Your task to perform on an android device: turn on showing notifications on the lock screen Image 0: 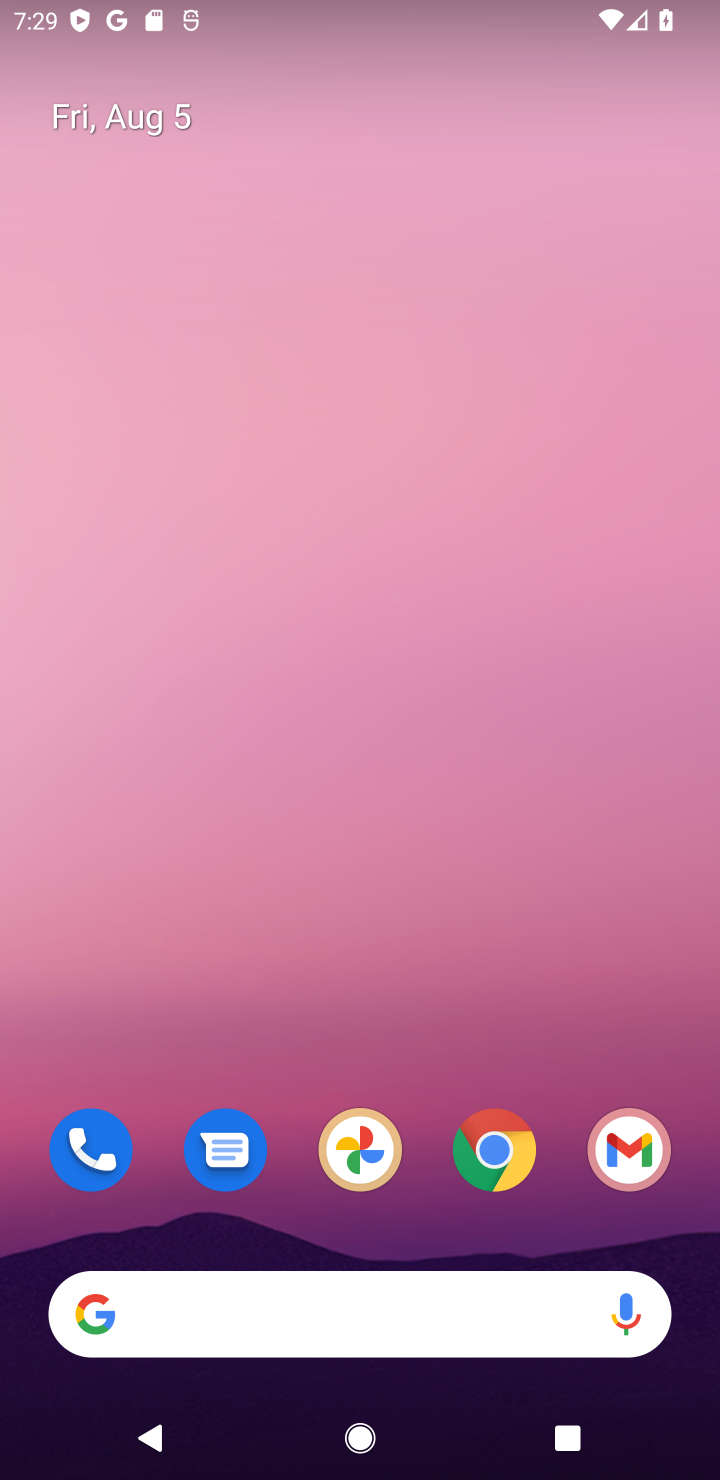
Step 0: press home button
Your task to perform on an android device: turn on showing notifications on the lock screen Image 1: 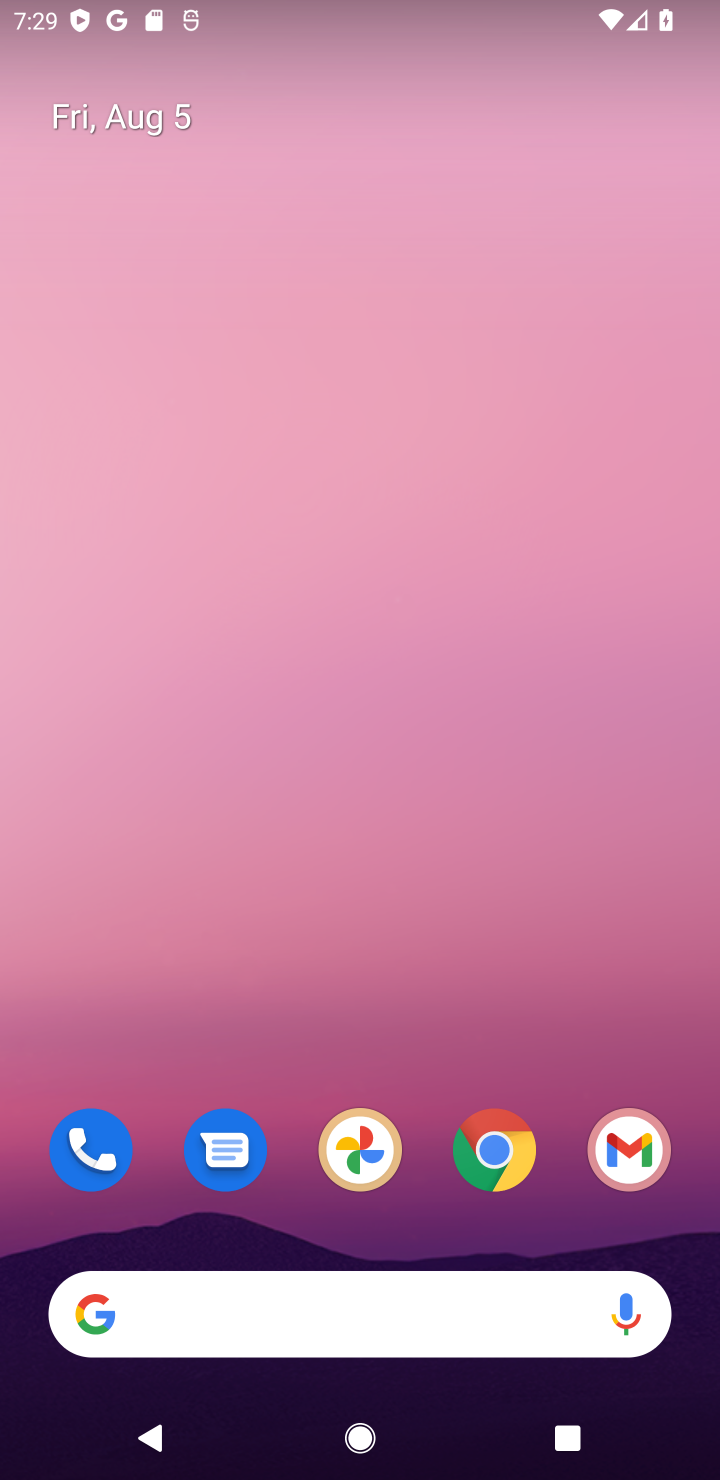
Step 1: drag from (424, 884) to (503, 365)
Your task to perform on an android device: turn on showing notifications on the lock screen Image 2: 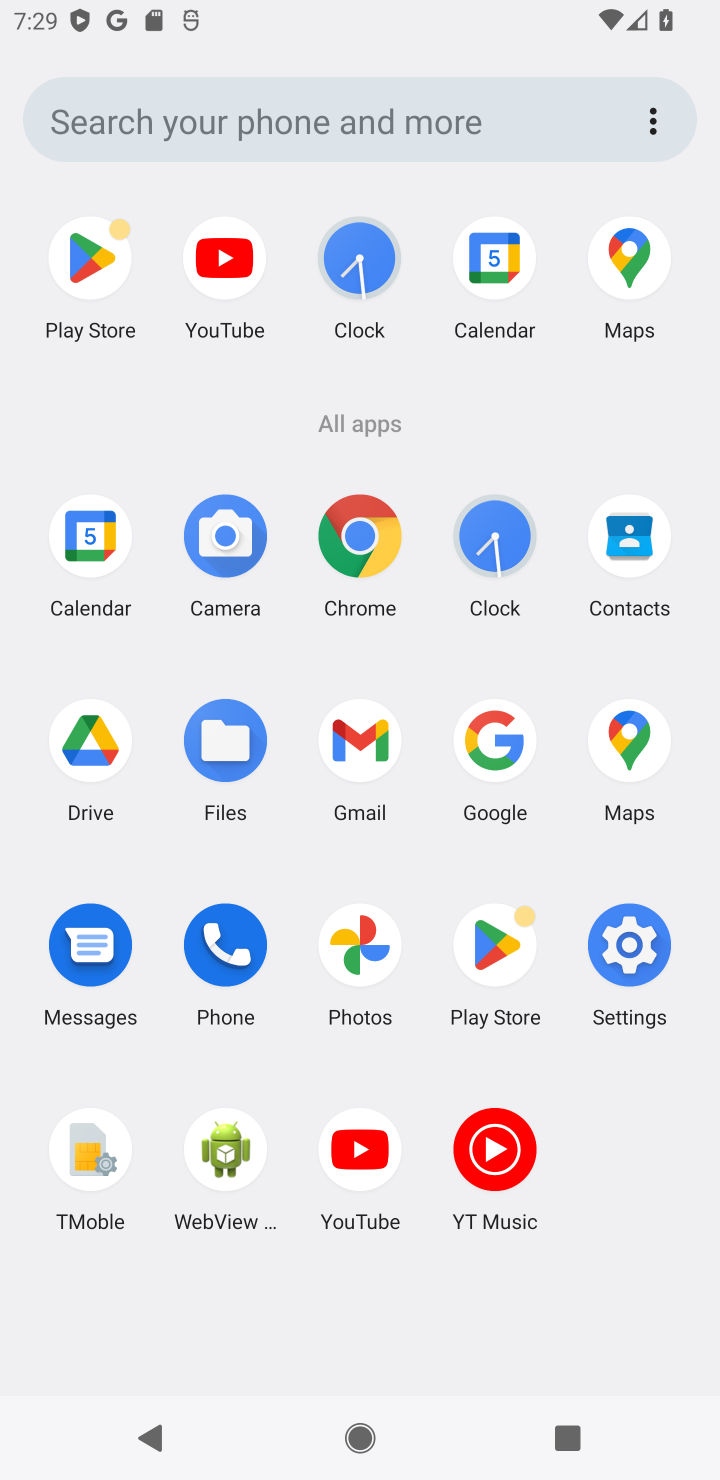
Step 2: click (620, 944)
Your task to perform on an android device: turn on showing notifications on the lock screen Image 3: 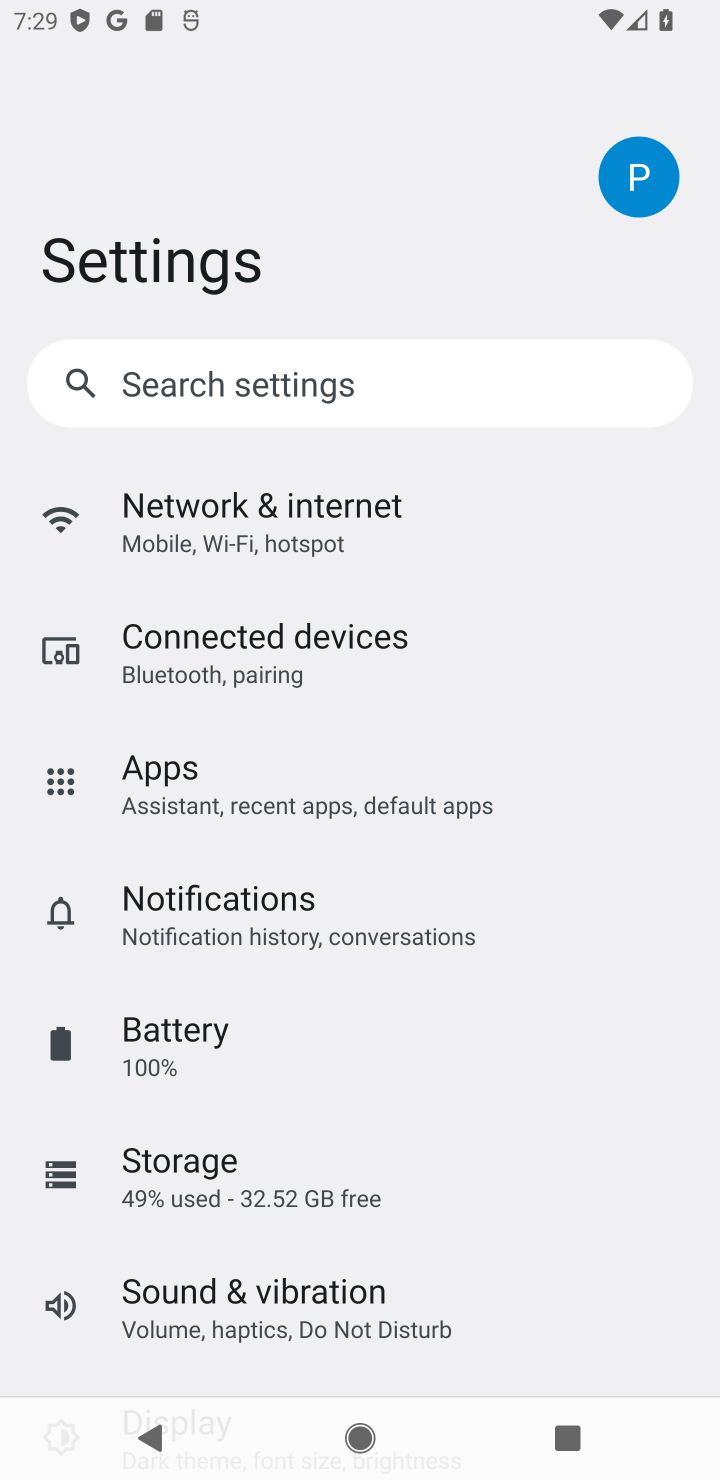
Step 3: drag from (587, 1142) to (630, 794)
Your task to perform on an android device: turn on showing notifications on the lock screen Image 4: 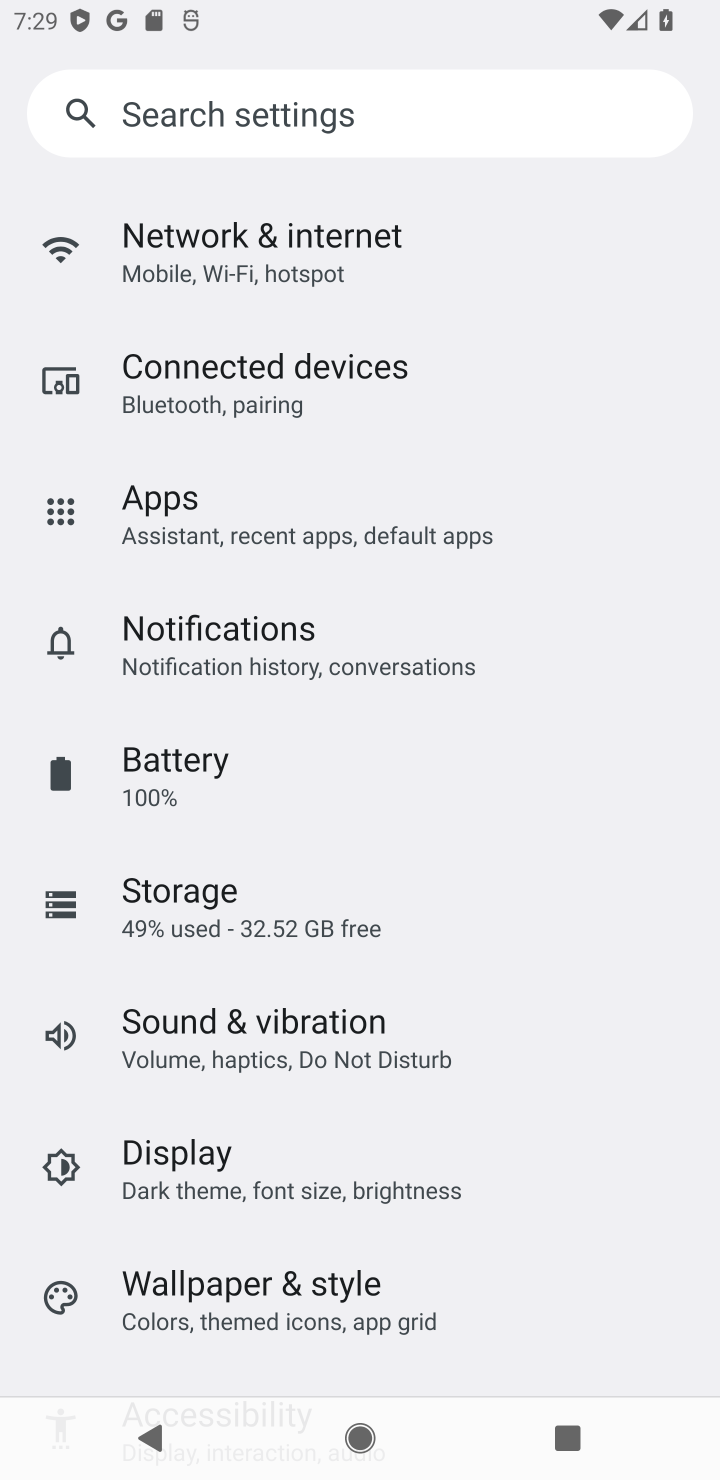
Step 4: drag from (541, 1109) to (581, 829)
Your task to perform on an android device: turn on showing notifications on the lock screen Image 5: 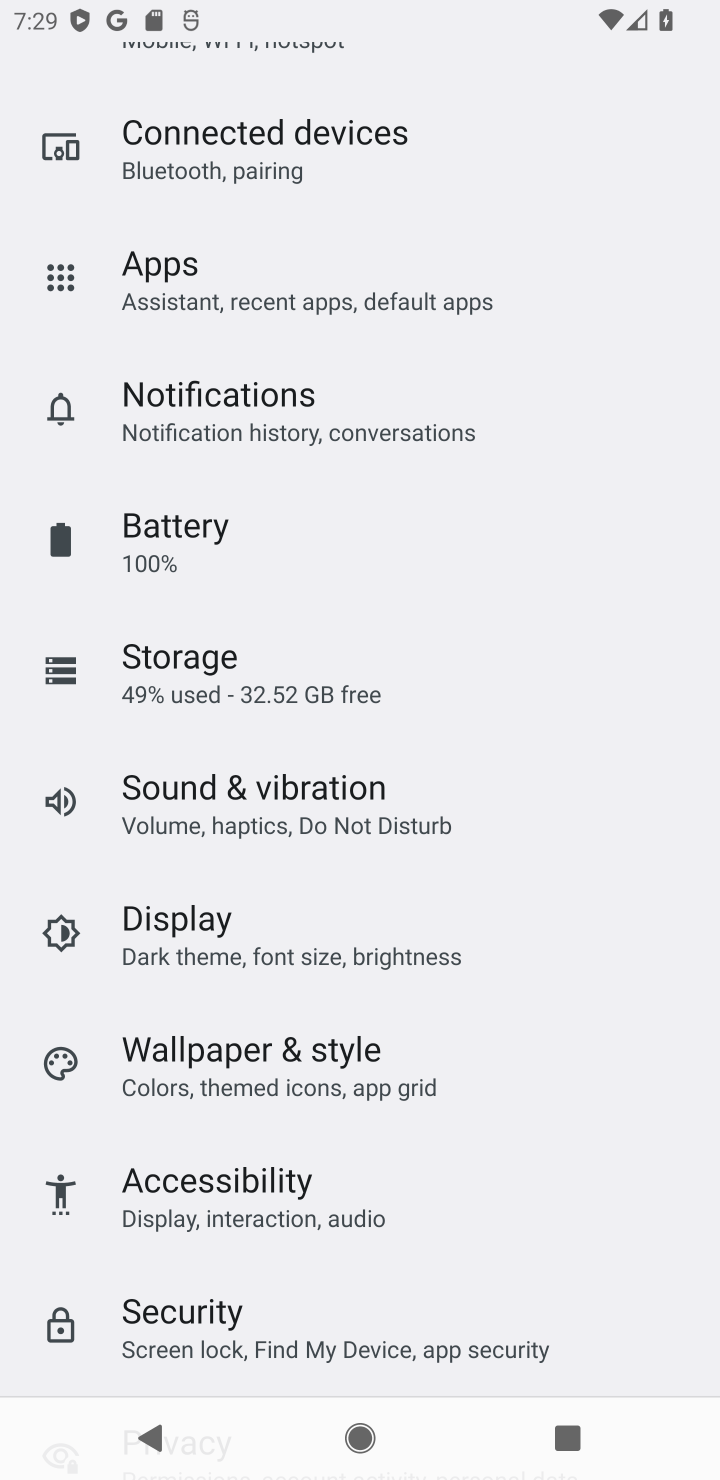
Step 5: drag from (566, 859) to (594, 581)
Your task to perform on an android device: turn on showing notifications on the lock screen Image 6: 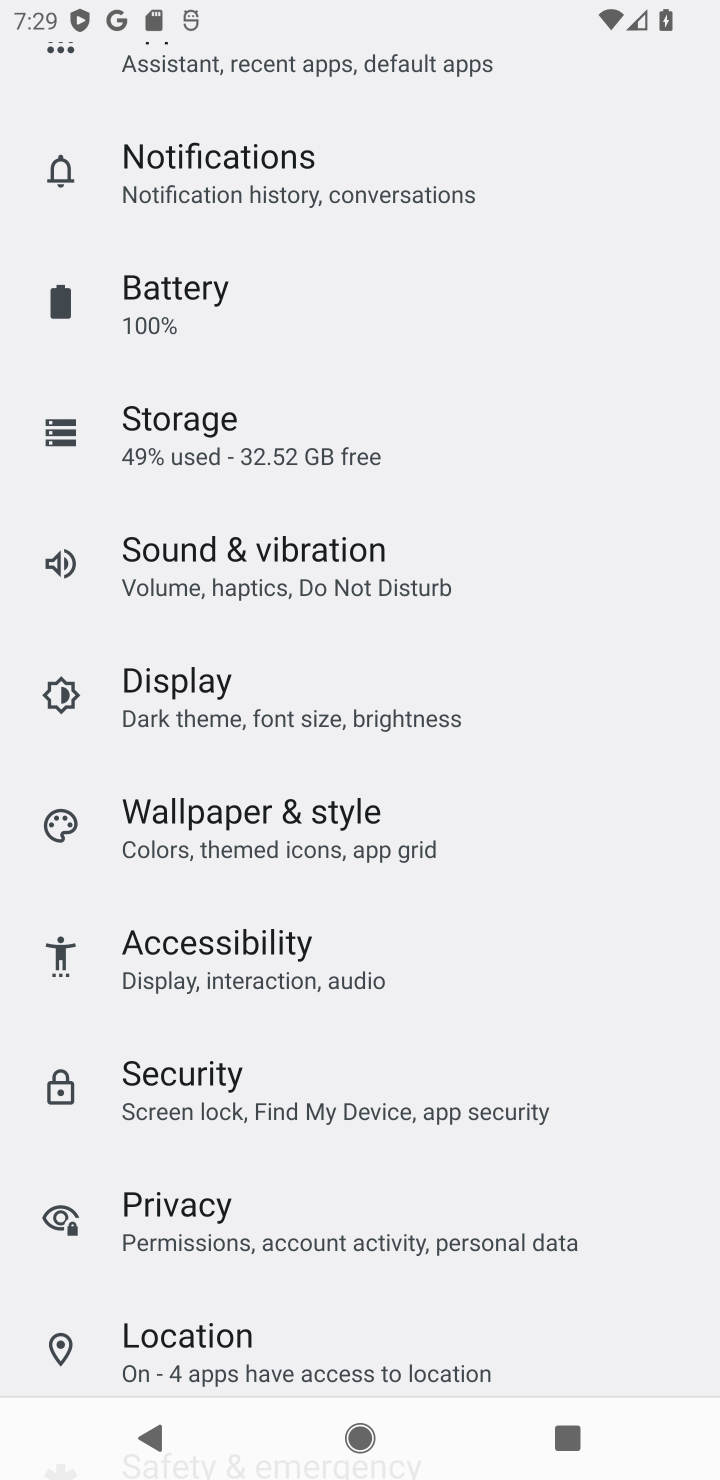
Step 6: drag from (570, 901) to (591, 680)
Your task to perform on an android device: turn on showing notifications on the lock screen Image 7: 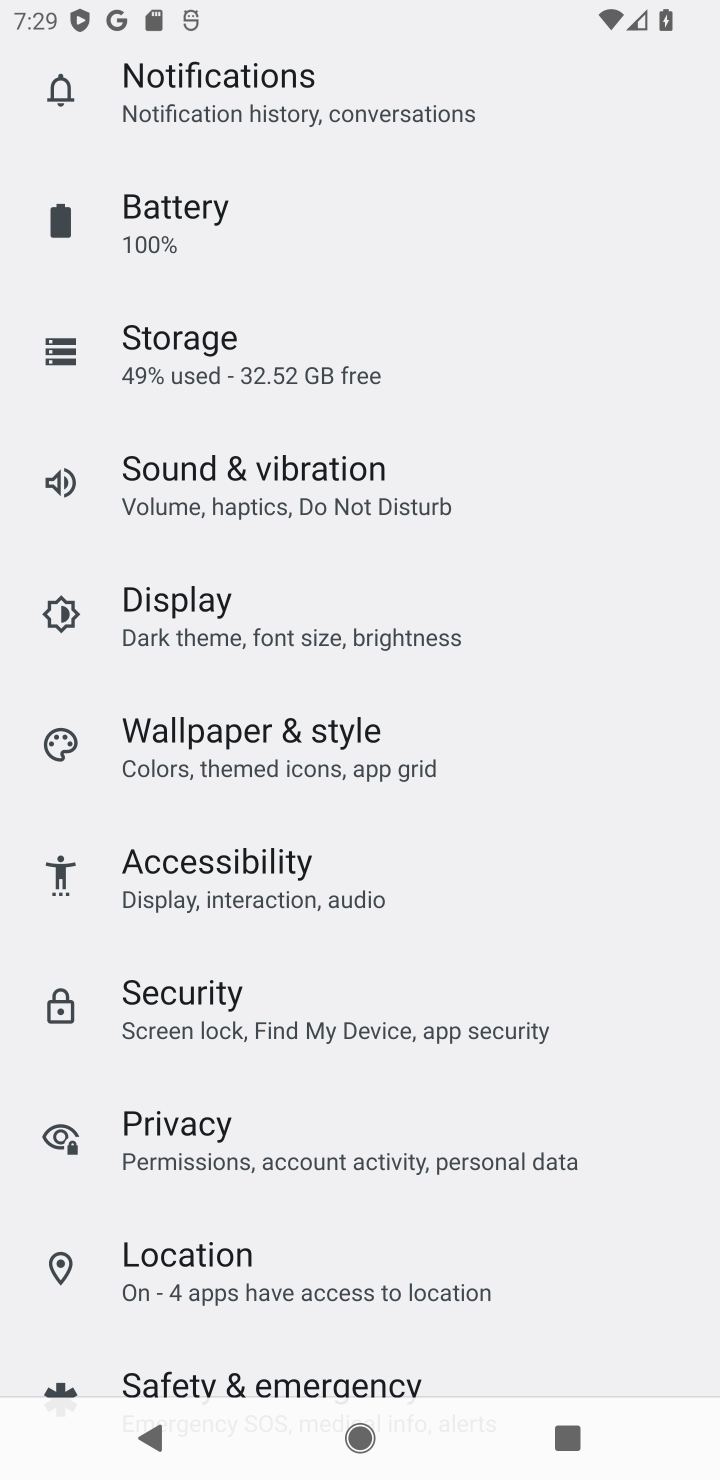
Step 7: drag from (573, 969) to (607, 621)
Your task to perform on an android device: turn on showing notifications on the lock screen Image 8: 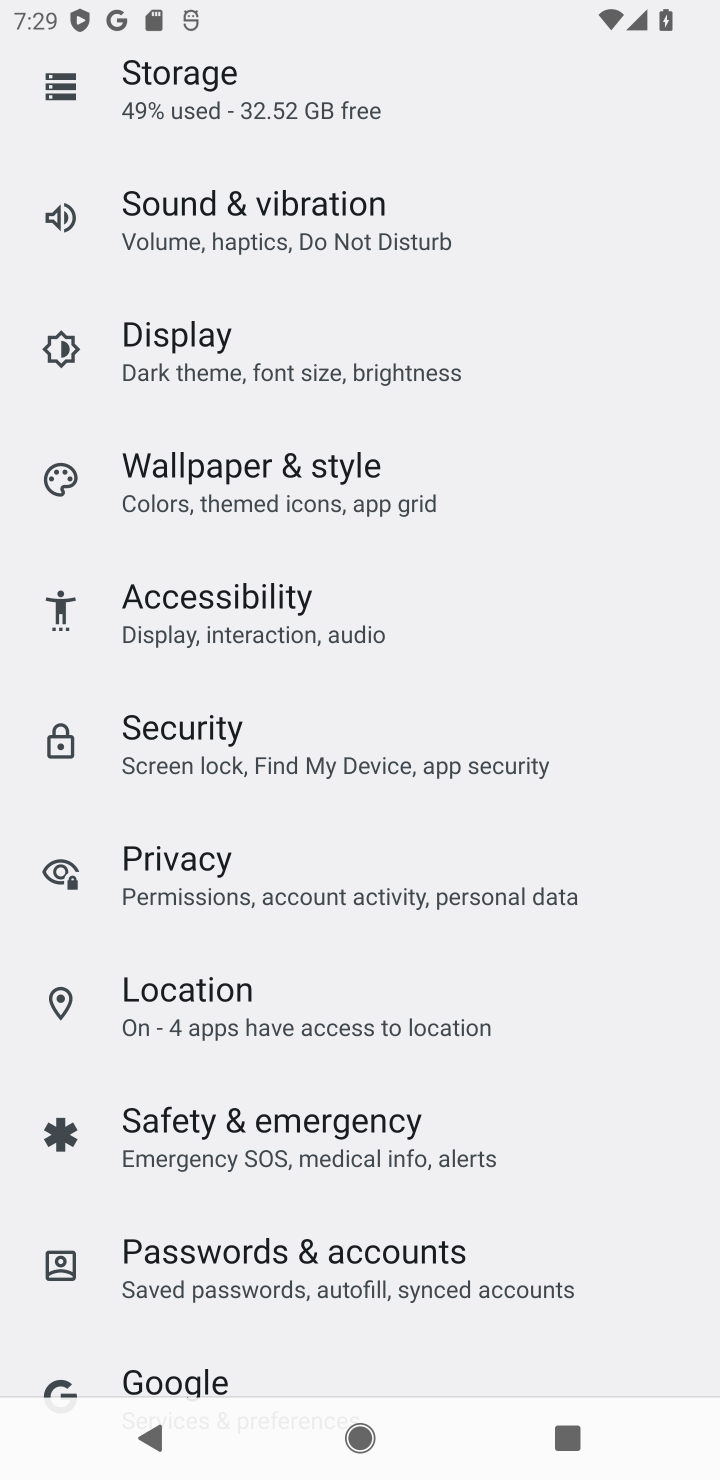
Step 8: drag from (588, 1000) to (599, 630)
Your task to perform on an android device: turn on showing notifications on the lock screen Image 9: 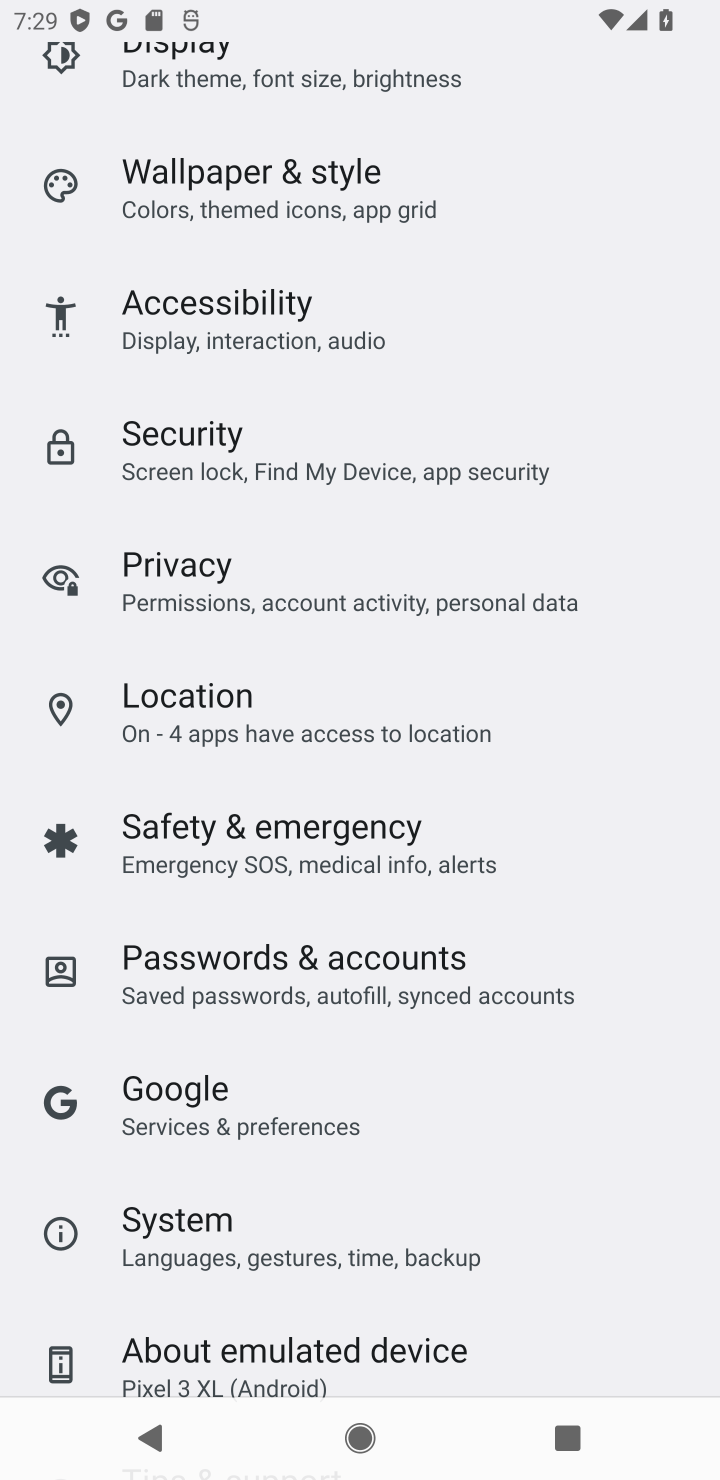
Step 9: drag from (620, 349) to (640, 672)
Your task to perform on an android device: turn on showing notifications on the lock screen Image 10: 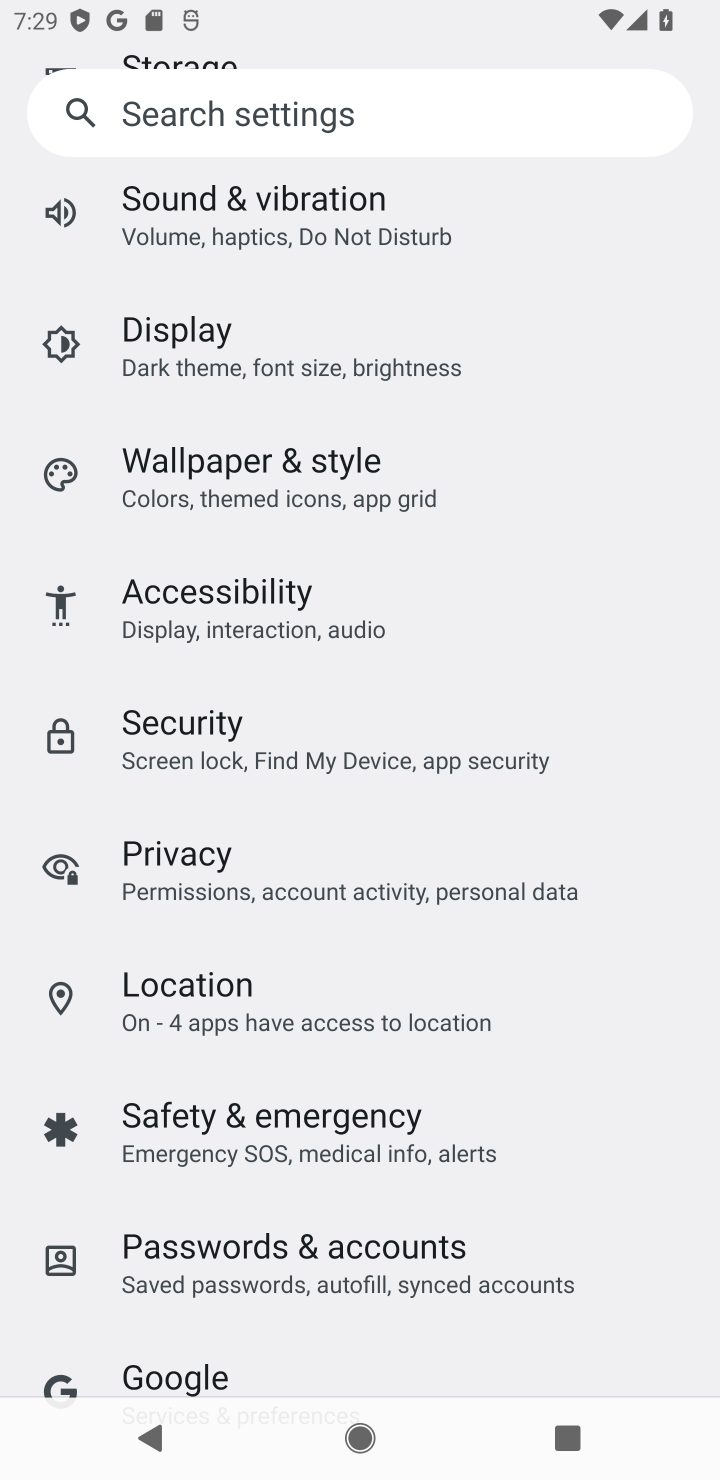
Step 10: drag from (627, 417) to (629, 758)
Your task to perform on an android device: turn on showing notifications on the lock screen Image 11: 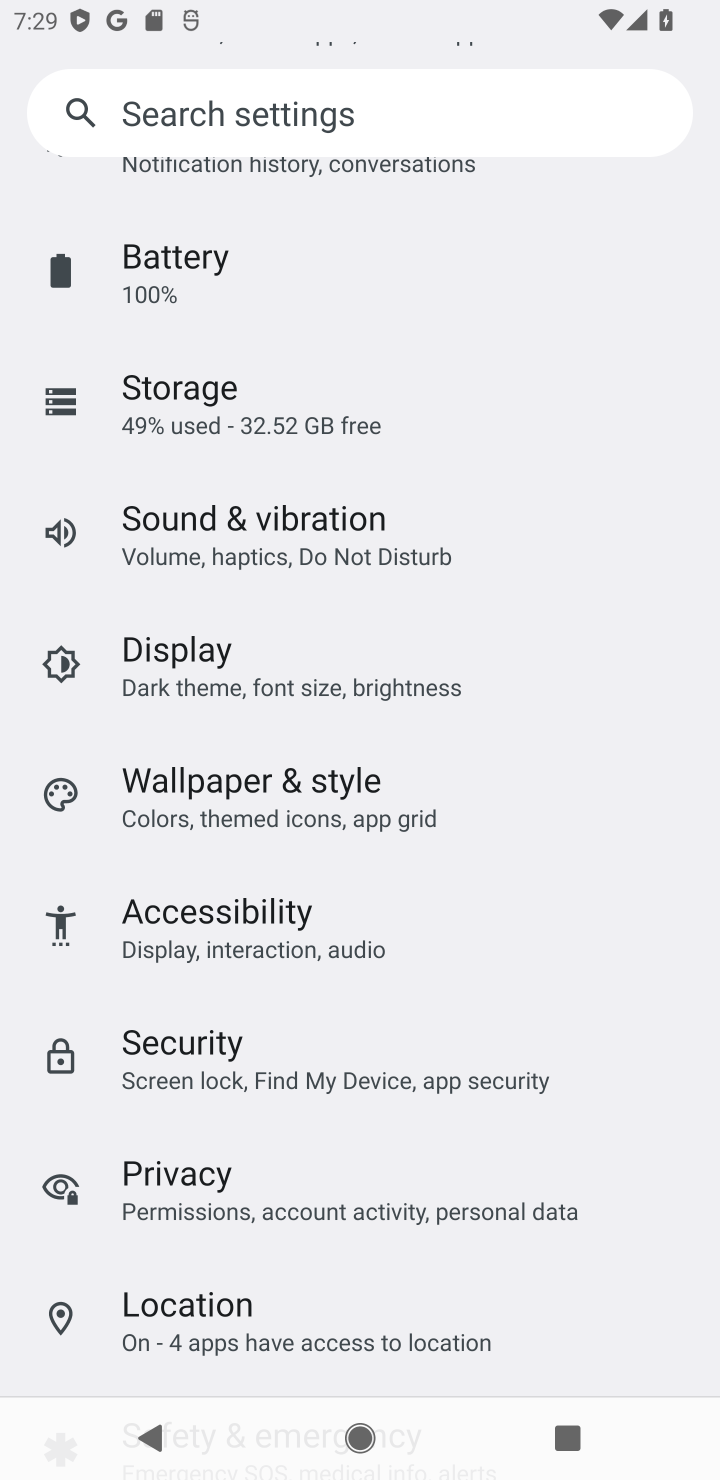
Step 11: drag from (618, 334) to (625, 746)
Your task to perform on an android device: turn on showing notifications on the lock screen Image 12: 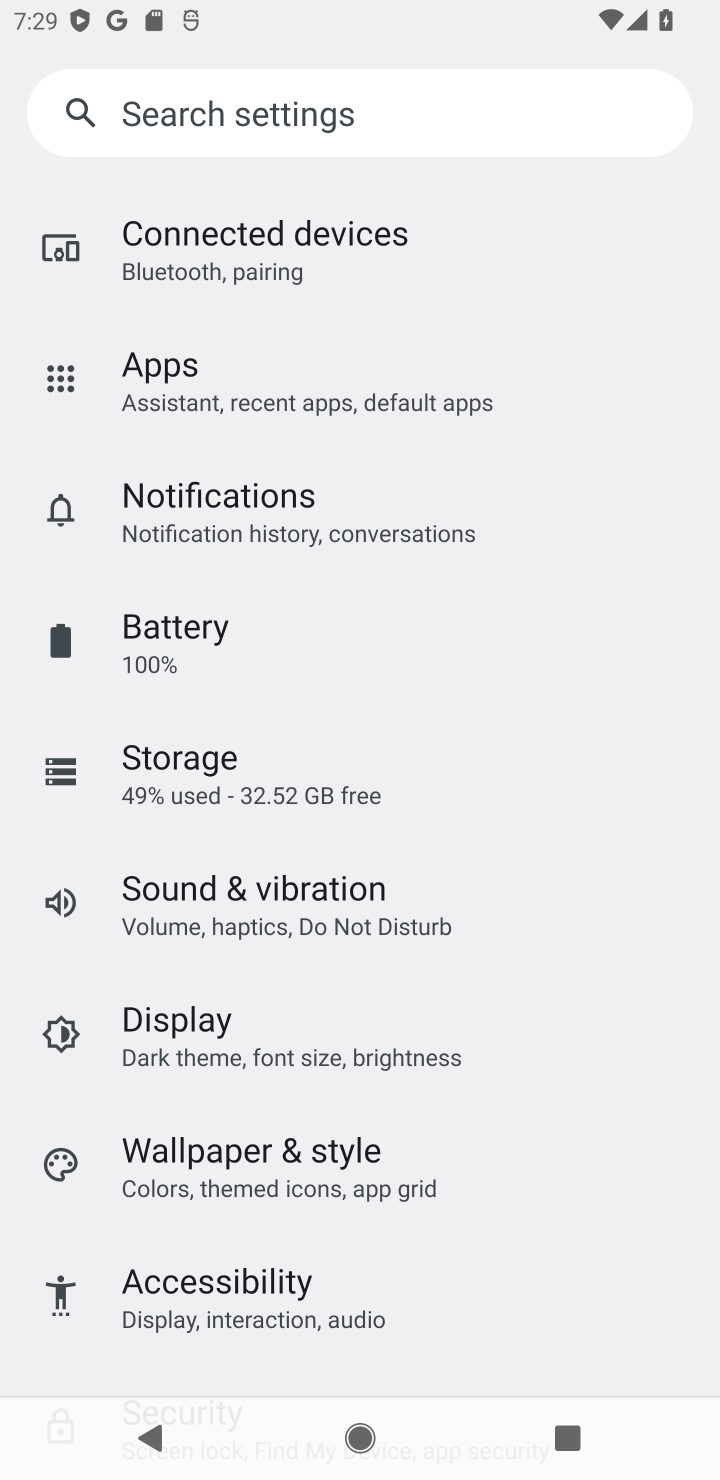
Step 12: drag from (624, 214) to (613, 749)
Your task to perform on an android device: turn on showing notifications on the lock screen Image 13: 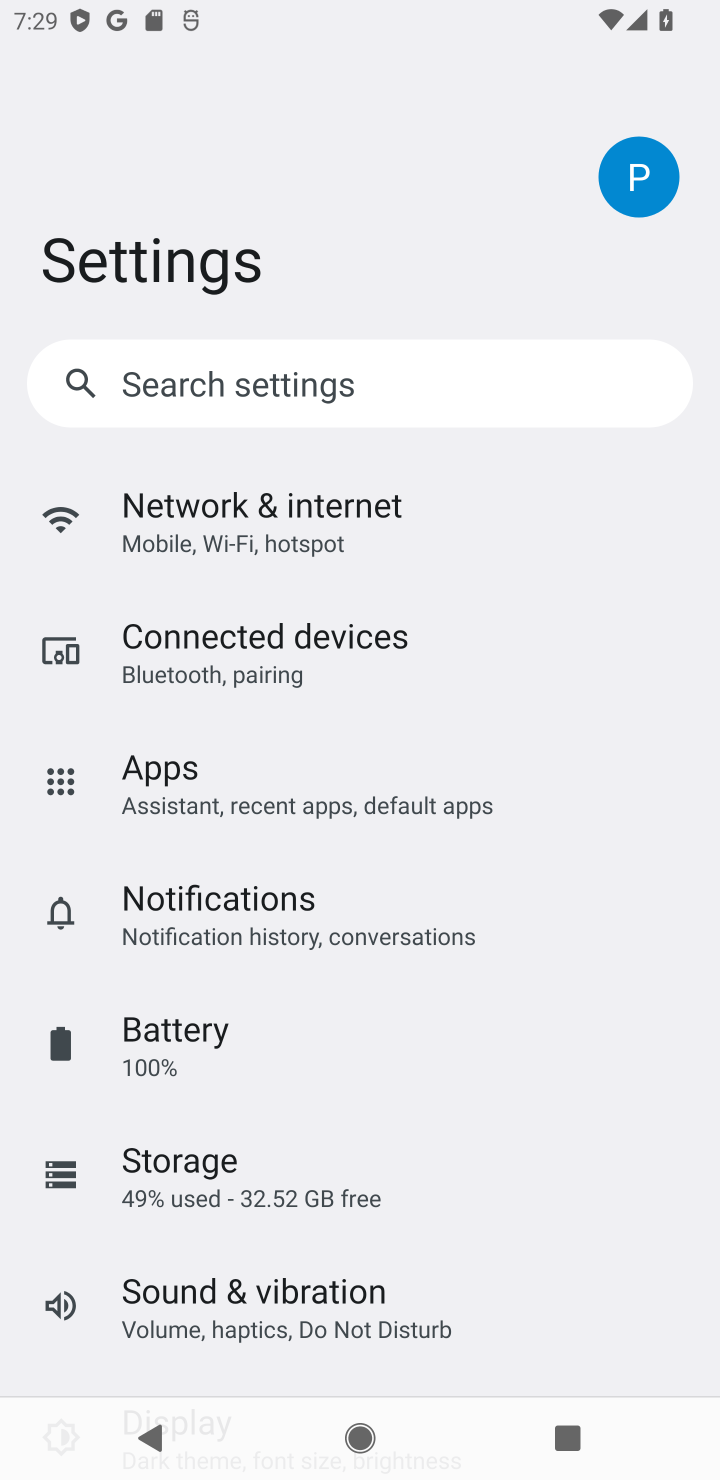
Step 13: click (328, 926)
Your task to perform on an android device: turn on showing notifications on the lock screen Image 14: 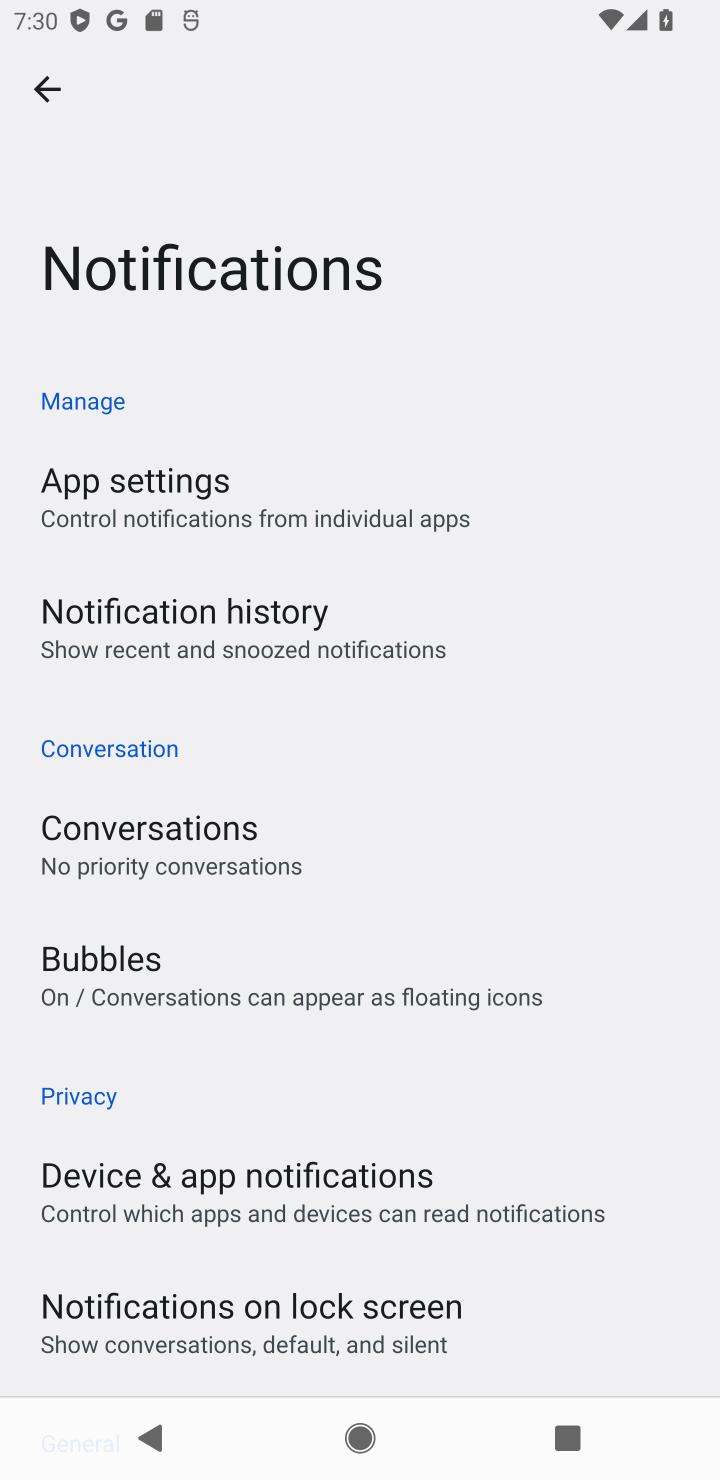
Step 14: drag from (590, 1028) to (608, 677)
Your task to perform on an android device: turn on showing notifications on the lock screen Image 15: 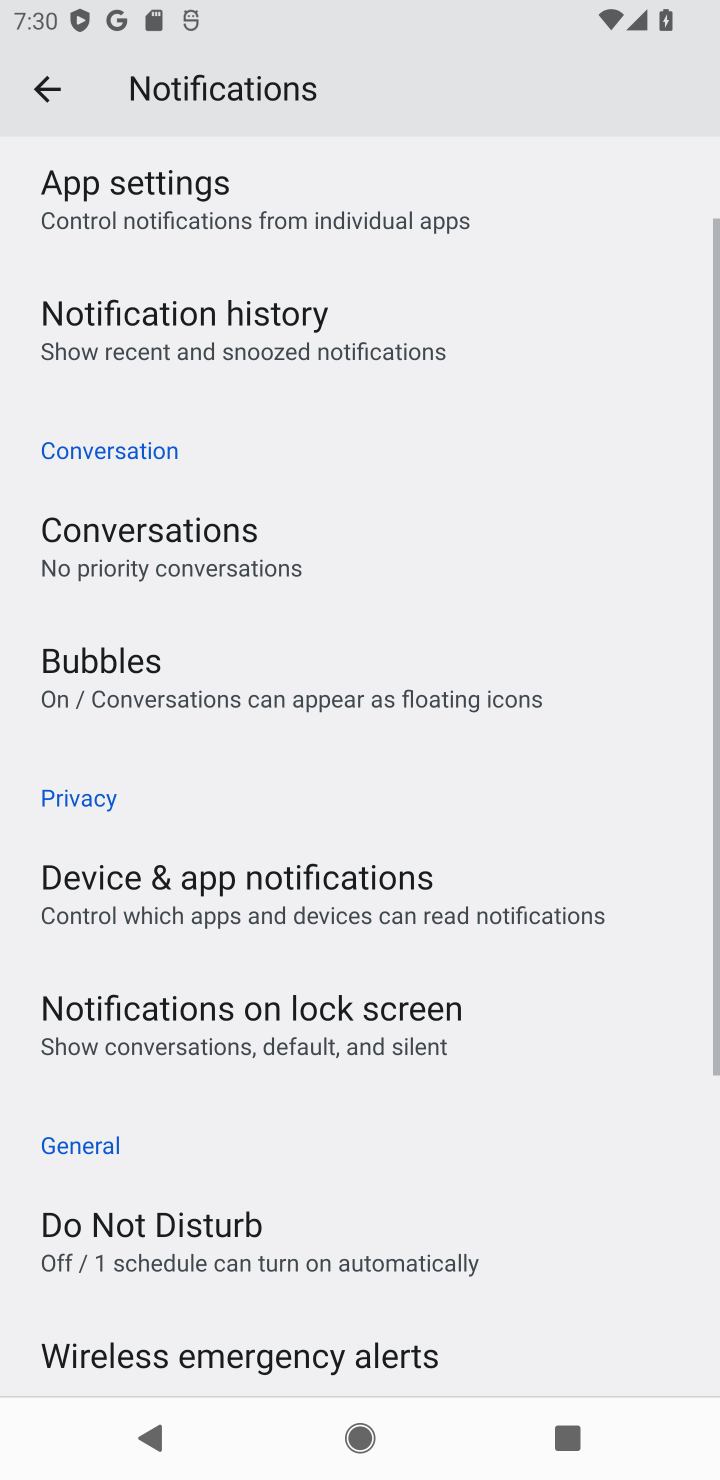
Step 15: drag from (580, 1144) to (553, 576)
Your task to perform on an android device: turn on showing notifications on the lock screen Image 16: 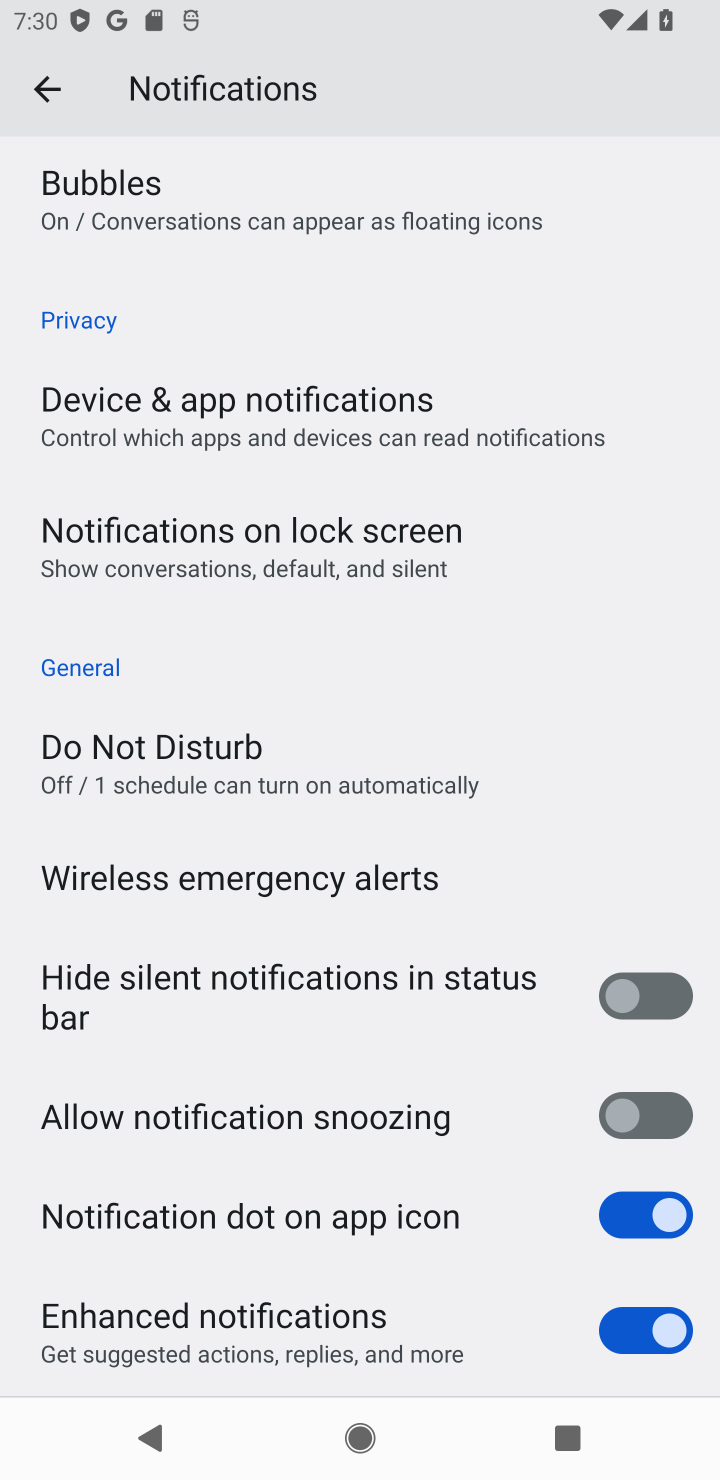
Step 16: click (294, 546)
Your task to perform on an android device: turn on showing notifications on the lock screen Image 17: 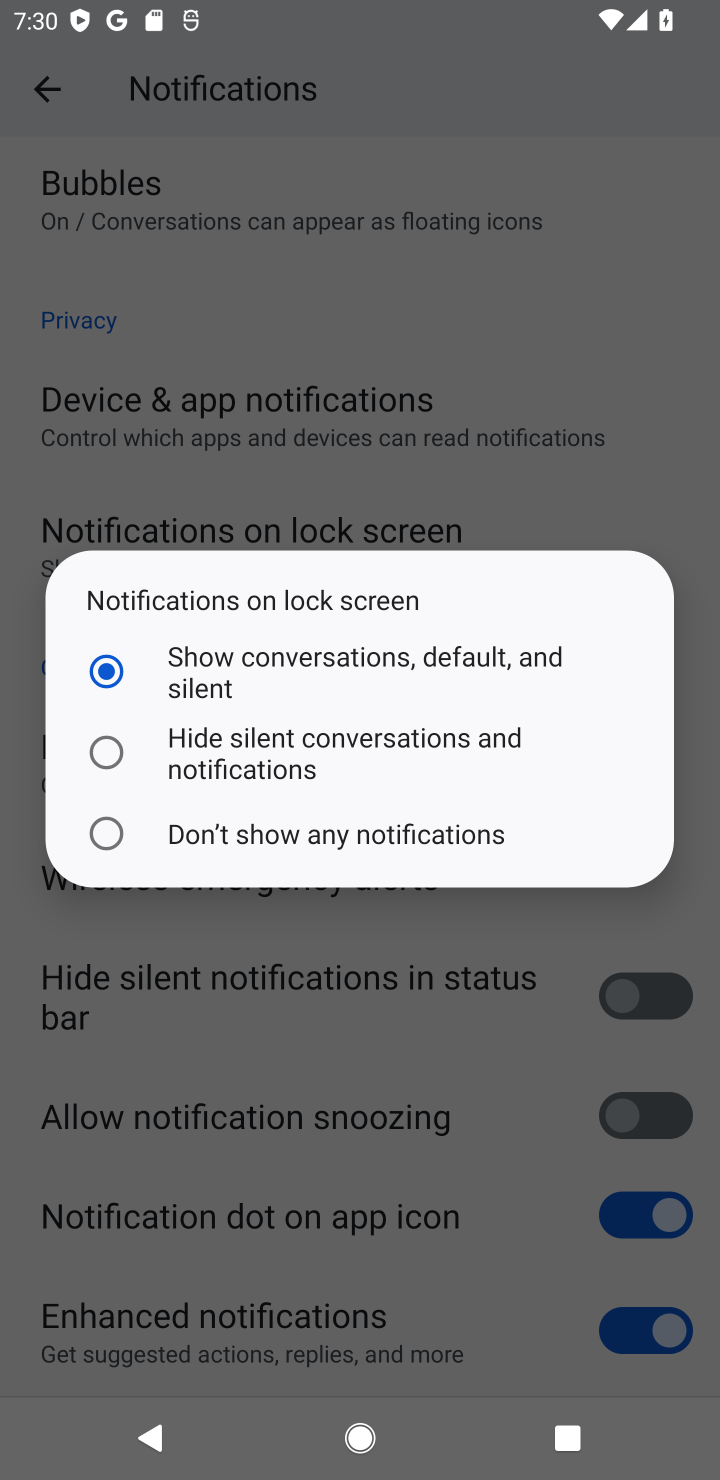
Step 17: task complete